Your task to perform on an android device: Go to notification settings Image 0: 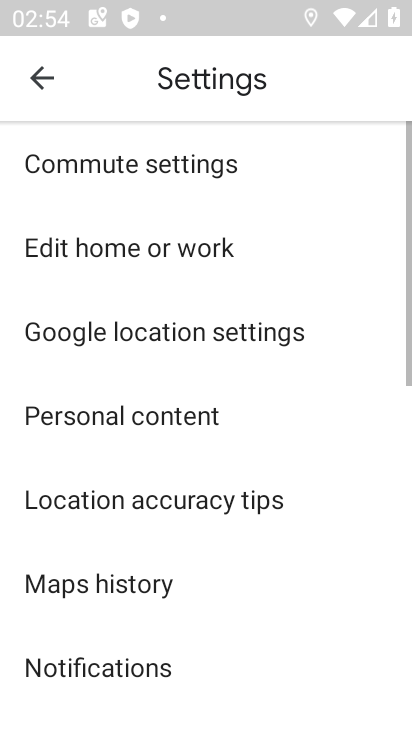
Step 0: press home button
Your task to perform on an android device: Go to notification settings Image 1: 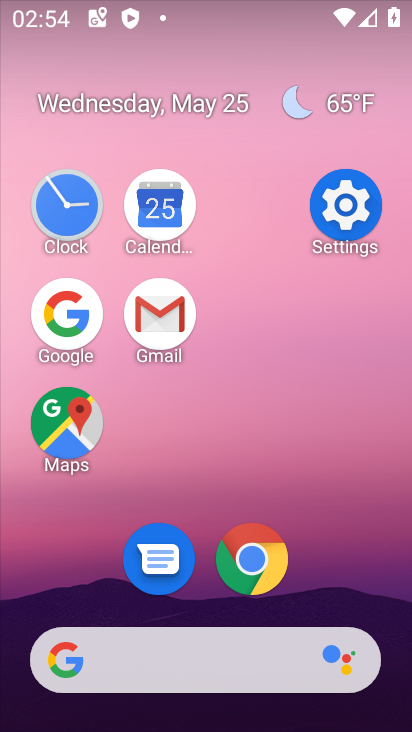
Step 1: click (331, 225)
Your task to perform on an android device: Go to notification settings Image 2: 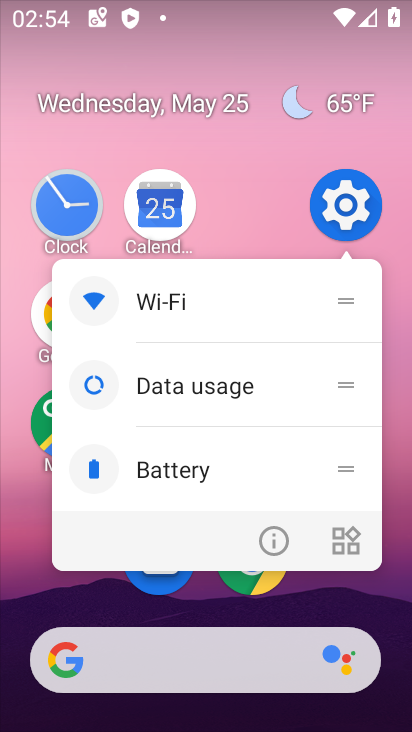
Step 2: click (357, 219)
Your task to perform on an android device: Go to notification settings Image 3: 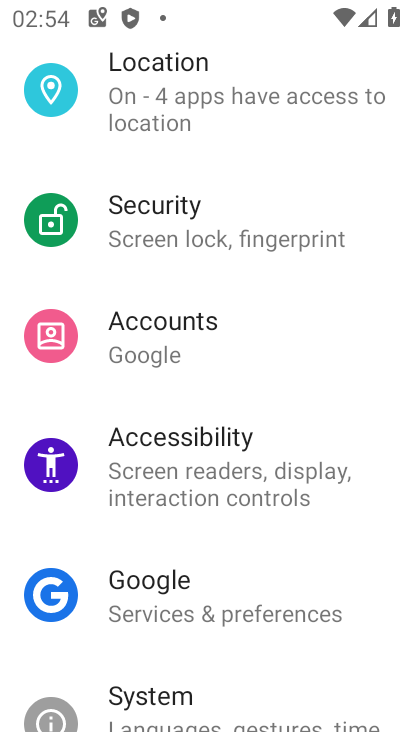
Step 3: drag from (308, 199) to (255, 589)
Your task to perform on an android device: Go to notification settings Image 4: 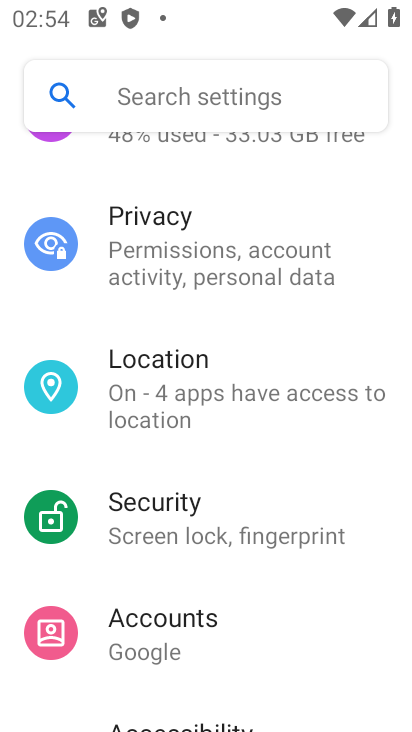
Step 4: drag from (326, 205) to (299, 582)
Your task to perform on an android device: Go to notification settings Image 5: 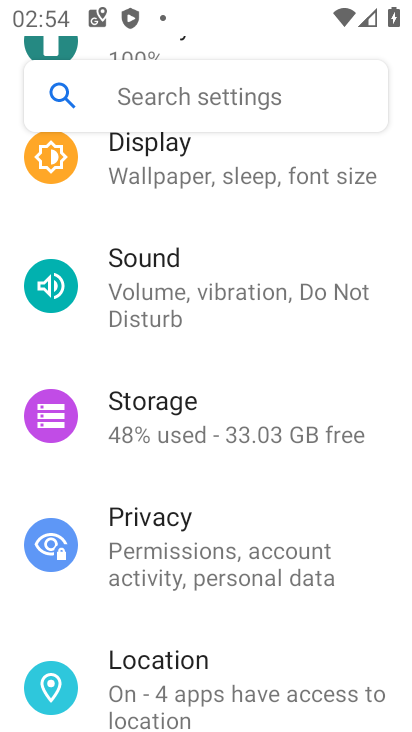
Step 5: drag from (303, 210) to (221, 650)
Your task to perform on an android device: Go to notification settings Image 6: 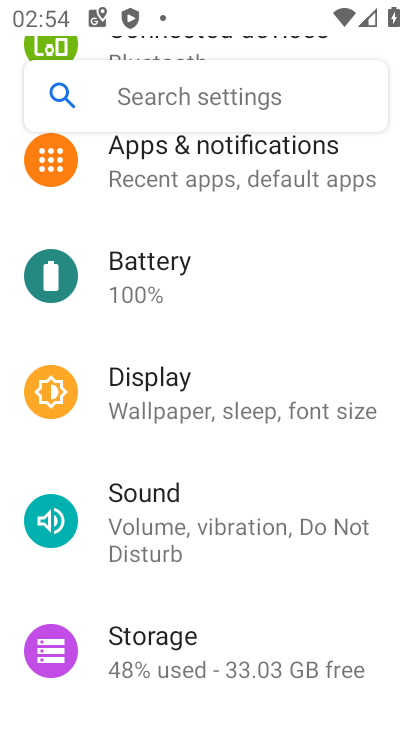
Step 6: drag from (278, 237) to (278, 541)
Your task to perform on an android device: Go to notification settings Image 7: 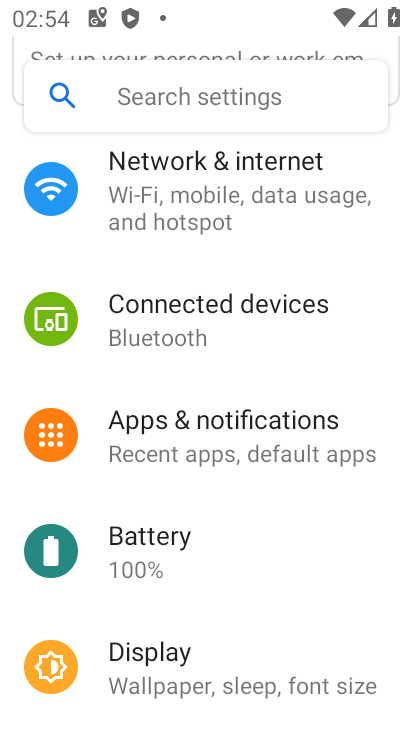
Step 7: click (272, 429)
Your task to perform on an android device: Go to notification settings Image 8: 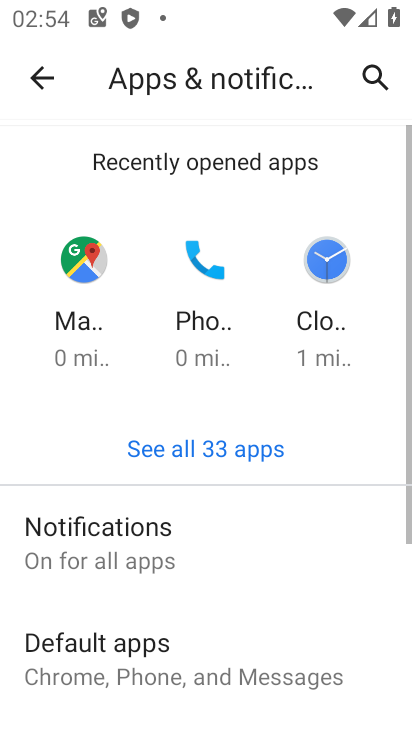
Step 8: click (179, 540)
Your task to perform on an android device: Go to notification settings Image 9: 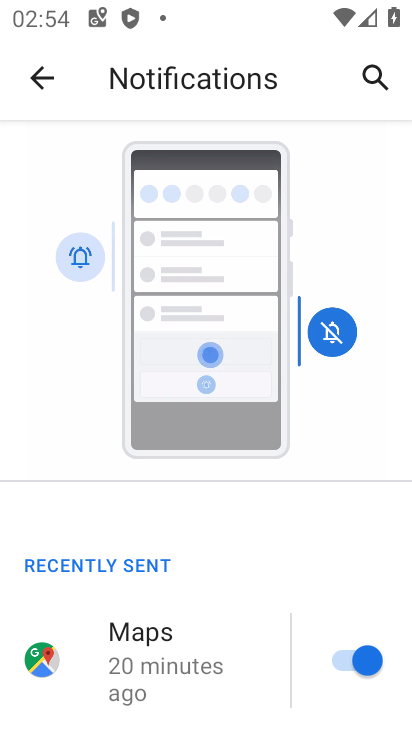
Step 9: task complete